Your task to perform on an android device: Show me popular videos on Youtube Image 0: 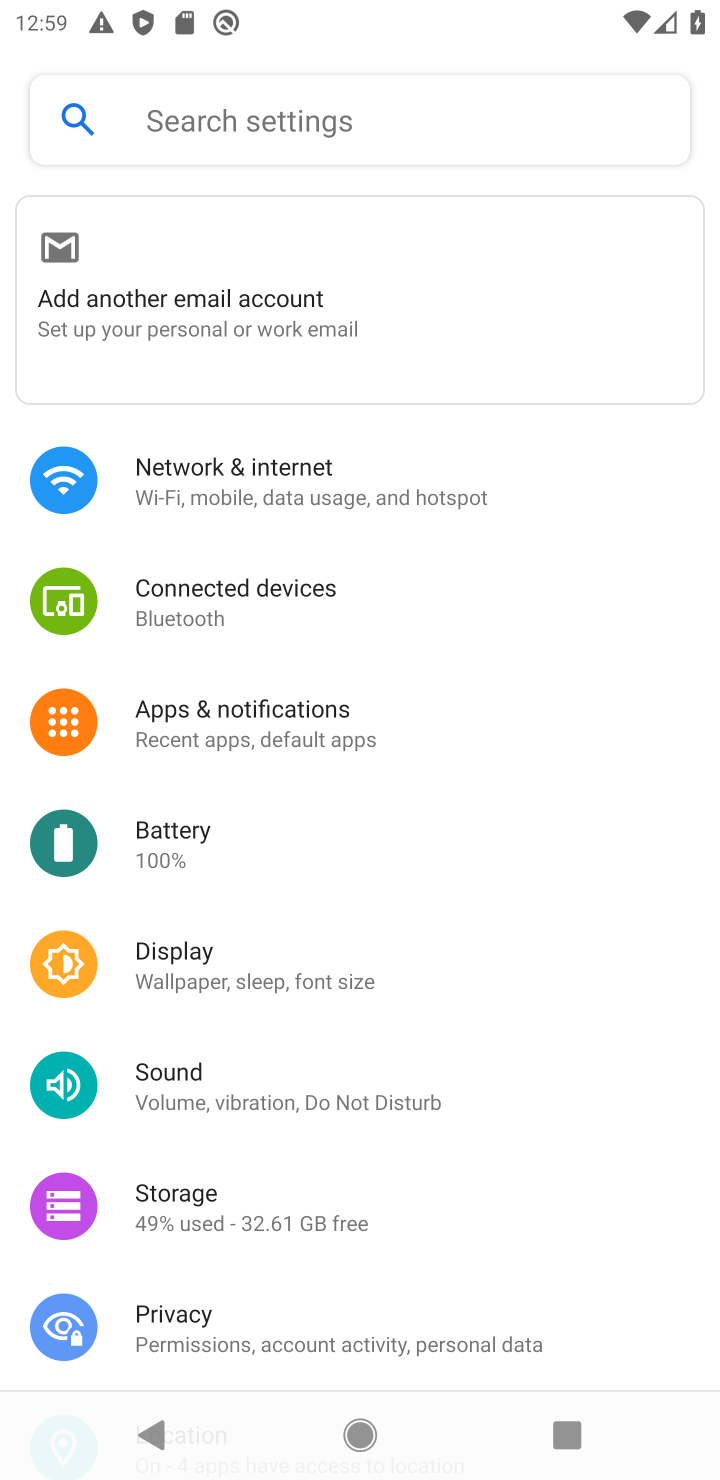
Step 0: press home button
Your task to perform on an android device: Show me popular videos on Youtube Image 1: 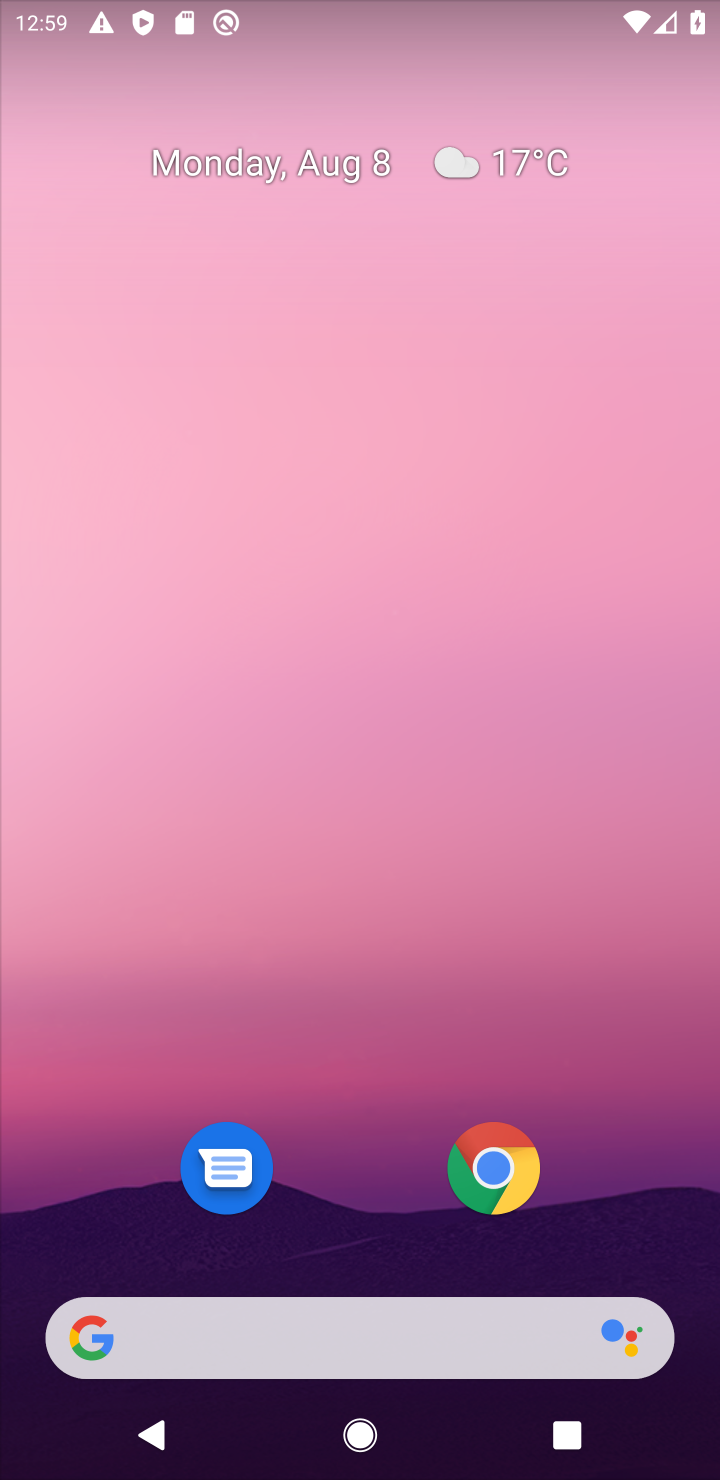
Step 1: drag from (136, 1361) to (484, 525)
Your task to perform on an android device: Show me popular videos on Youtube Image 2: 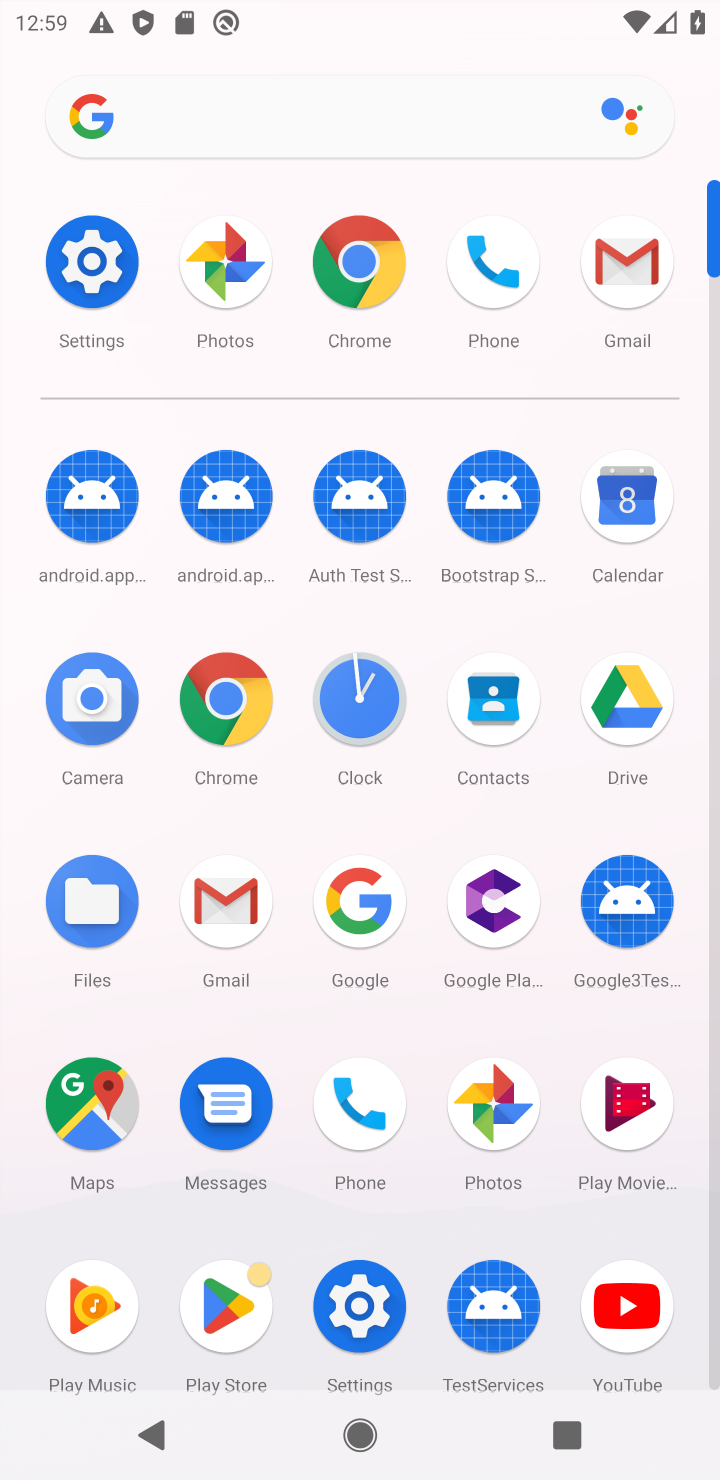
Step 2: click (635, 1302)
Your task to perform on an android device: Show me popular videos on Youtube Image 3: 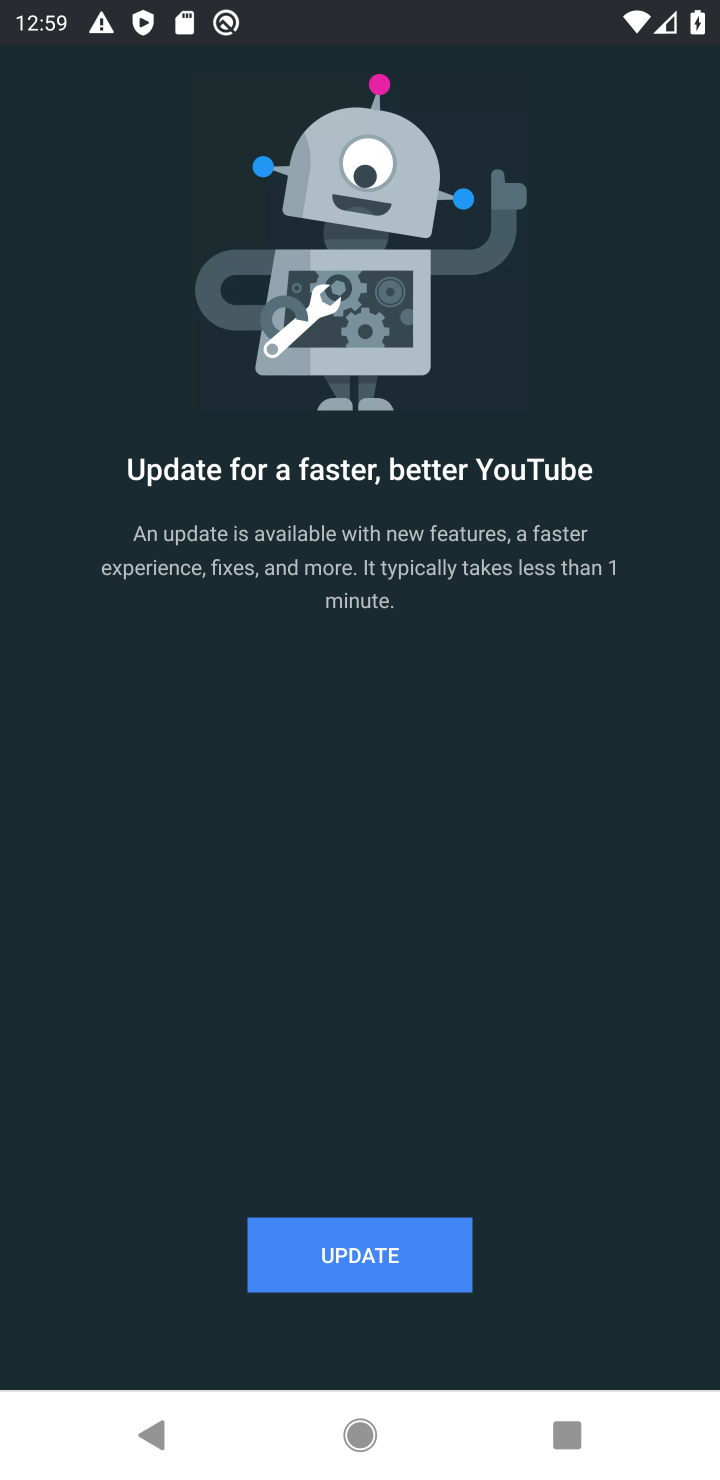
Step 3: click (361, 1249)
Your task to perform on an android device: Show me popular videos on Youtube Image 4: 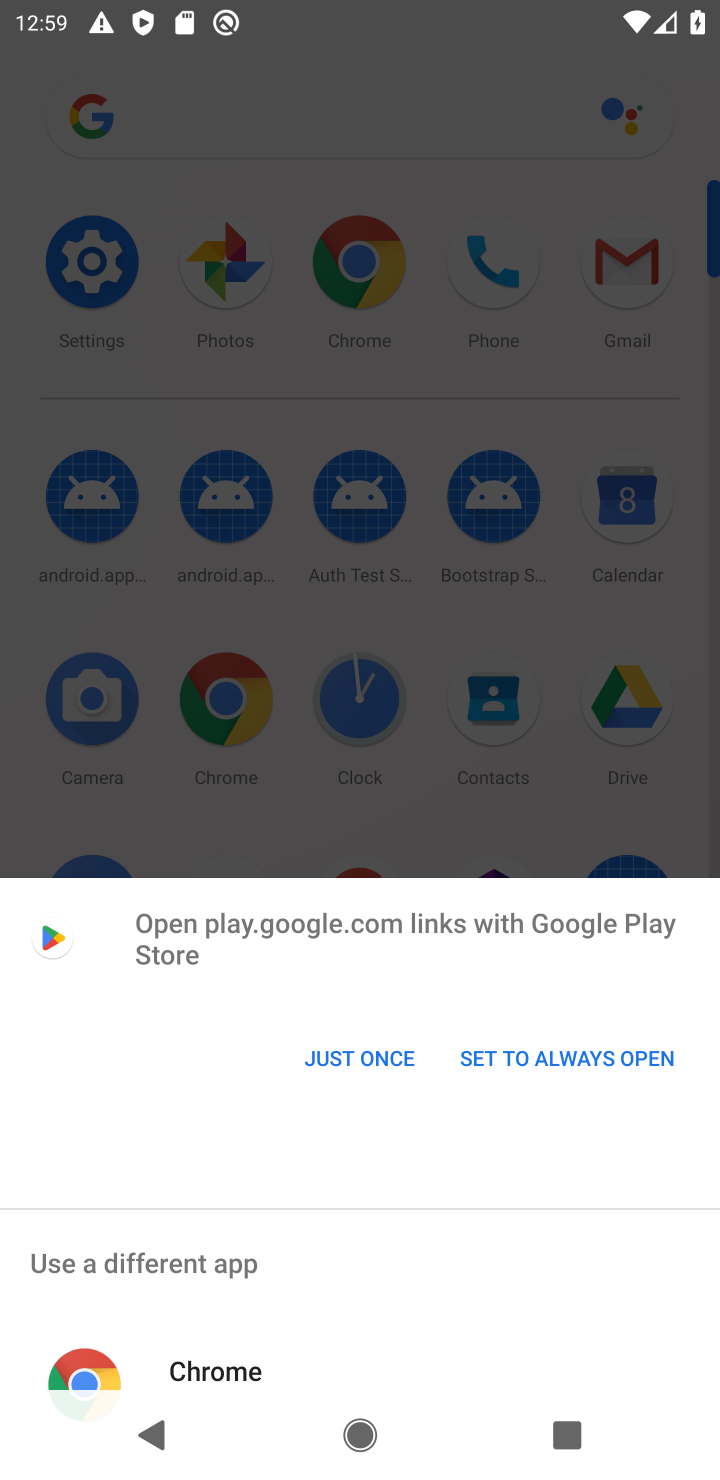
Step 4: click (362, 1056)
Your task to perform on an android device: Show me popular videos on Youtube Image 5: 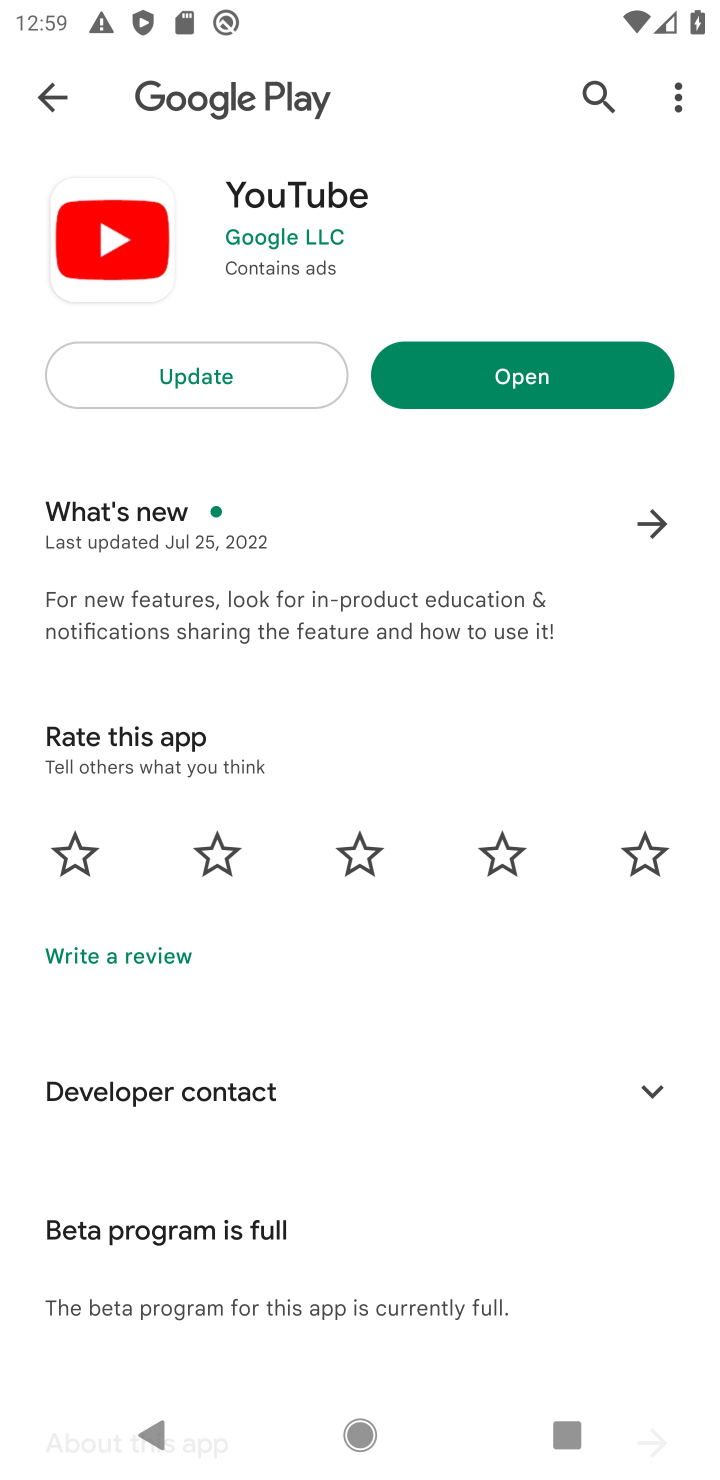
Step 5: click (501, 374)
Your task to perform on an android device: Show me popular videos on Youtube Image 6: 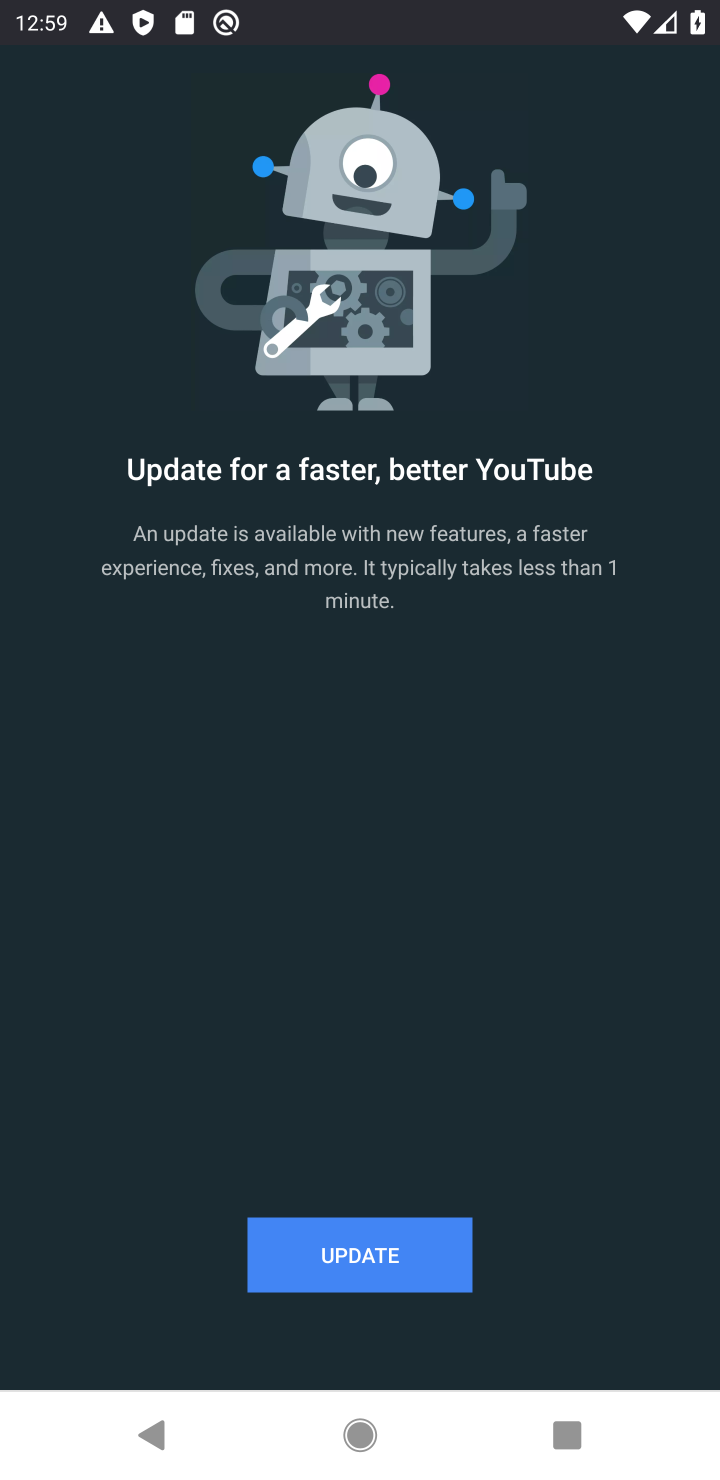
Step 6: task complete